Your task to perform on an android device: Show the shopping cart on costco. Search for "bose soundsport free" on costco, select the first entry, and add it to the cart. Image 0: 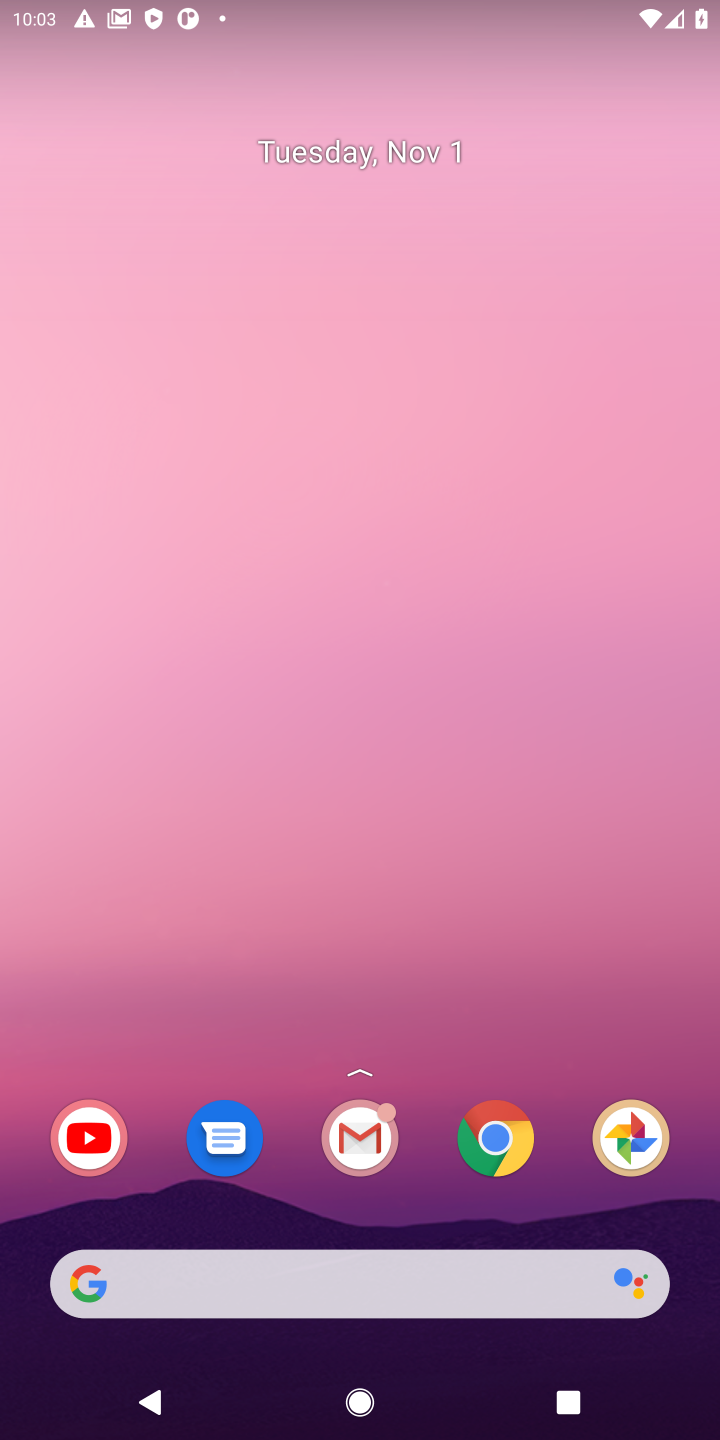
Step 0: click (501, 1159)
Your task to perform on an android device: Show the shopping cart on costco. Search for "bose soundsport free" on costco, select the first entry, and add it to the cart. Image 1: 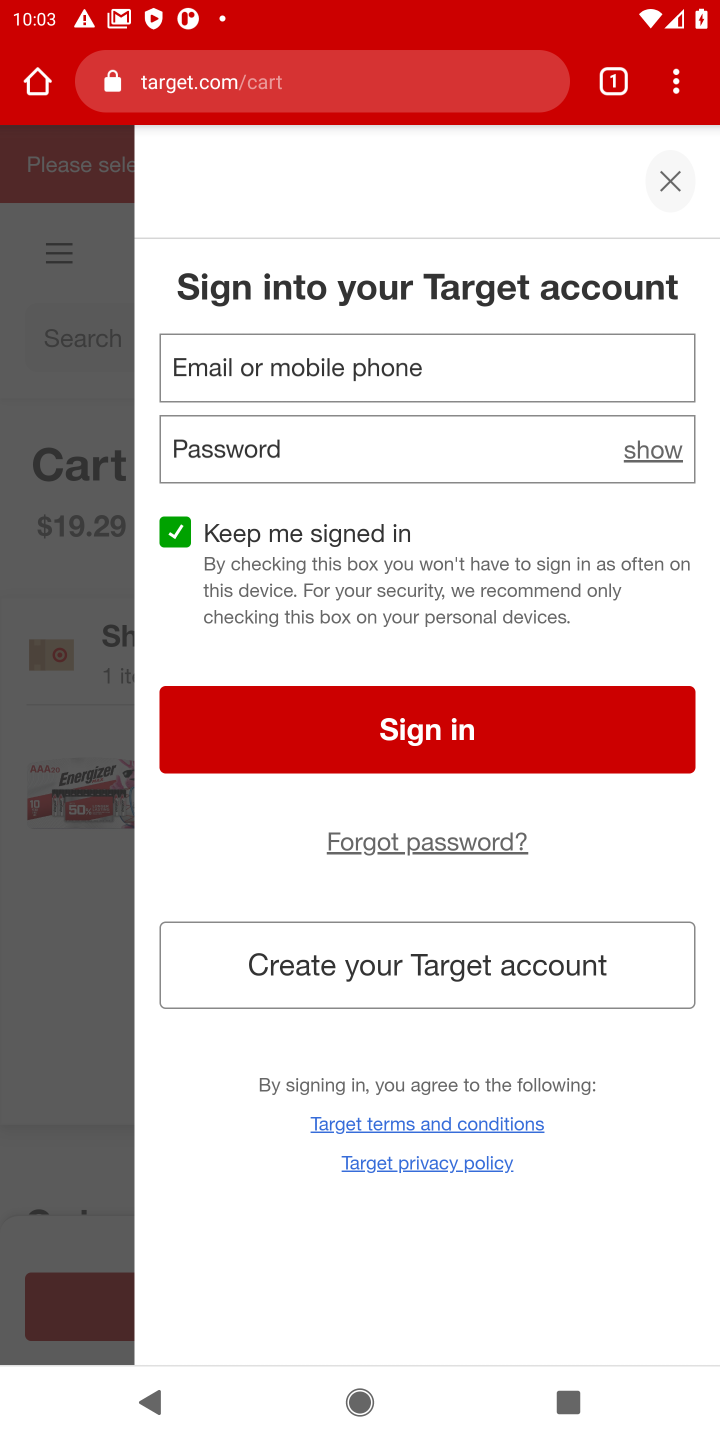
Step 1: click (229, 86)
Your task to perform on an android device: Show the shopping cart on costco. Search for "bose soundsport free" on costco, select the first entry, and add it to the cart. Image 2: 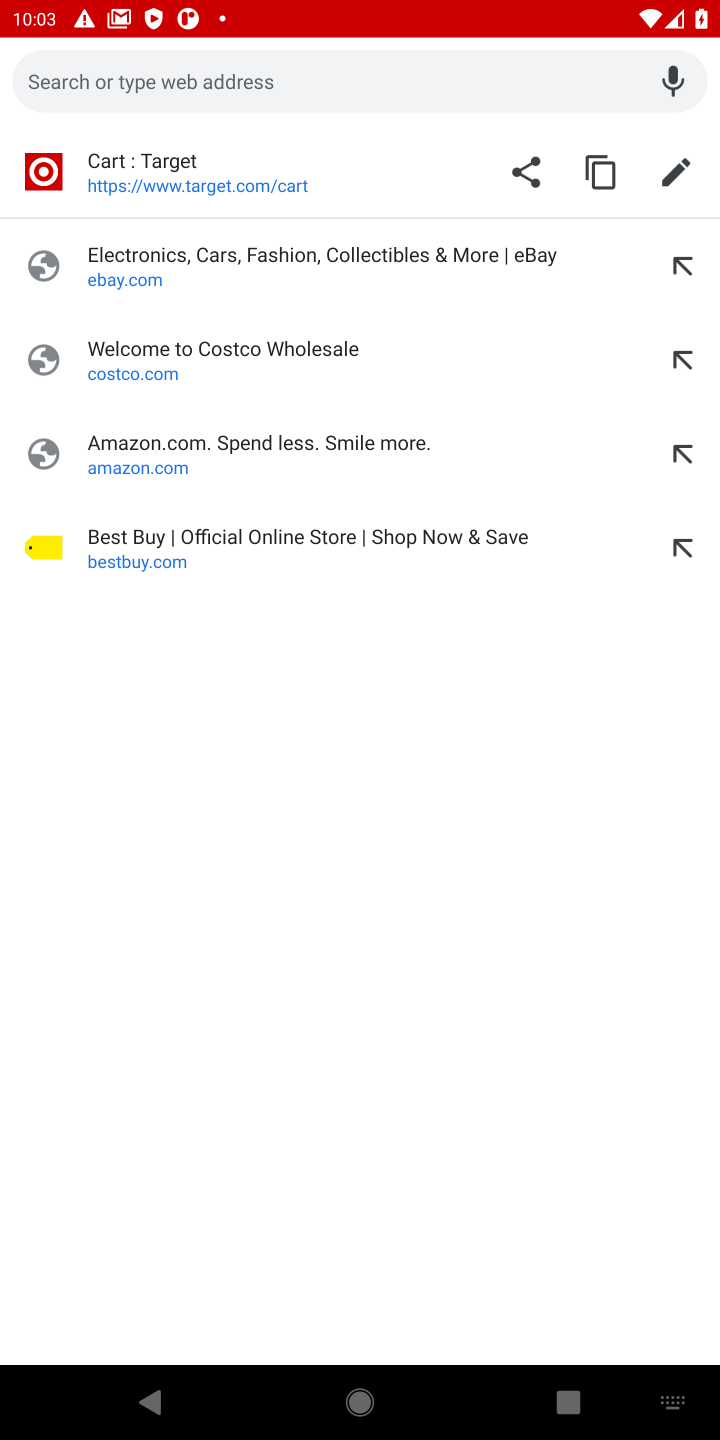
Step 2: click (153, 370)
Your task to perform on an android device: Show the shopping cart on costco. Search for "bose soundsport free" on costco, select the first entry, and add it to the cart. Image 3: 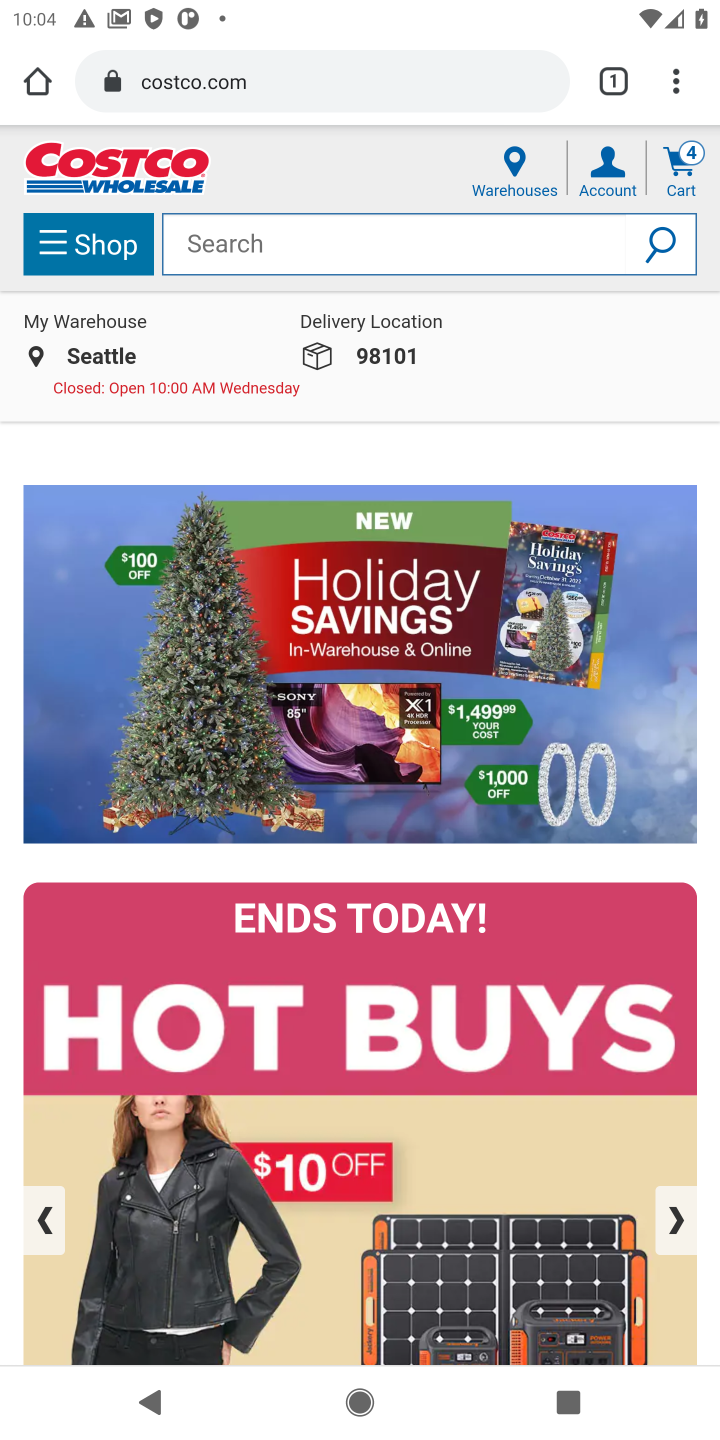
Step 3: click (691, 167)
Your task to perform on an android device: Show the shopping cart on costco. Search for "bose soundsport free" on costco, select the first entry, and add it to the cart. Image 4: 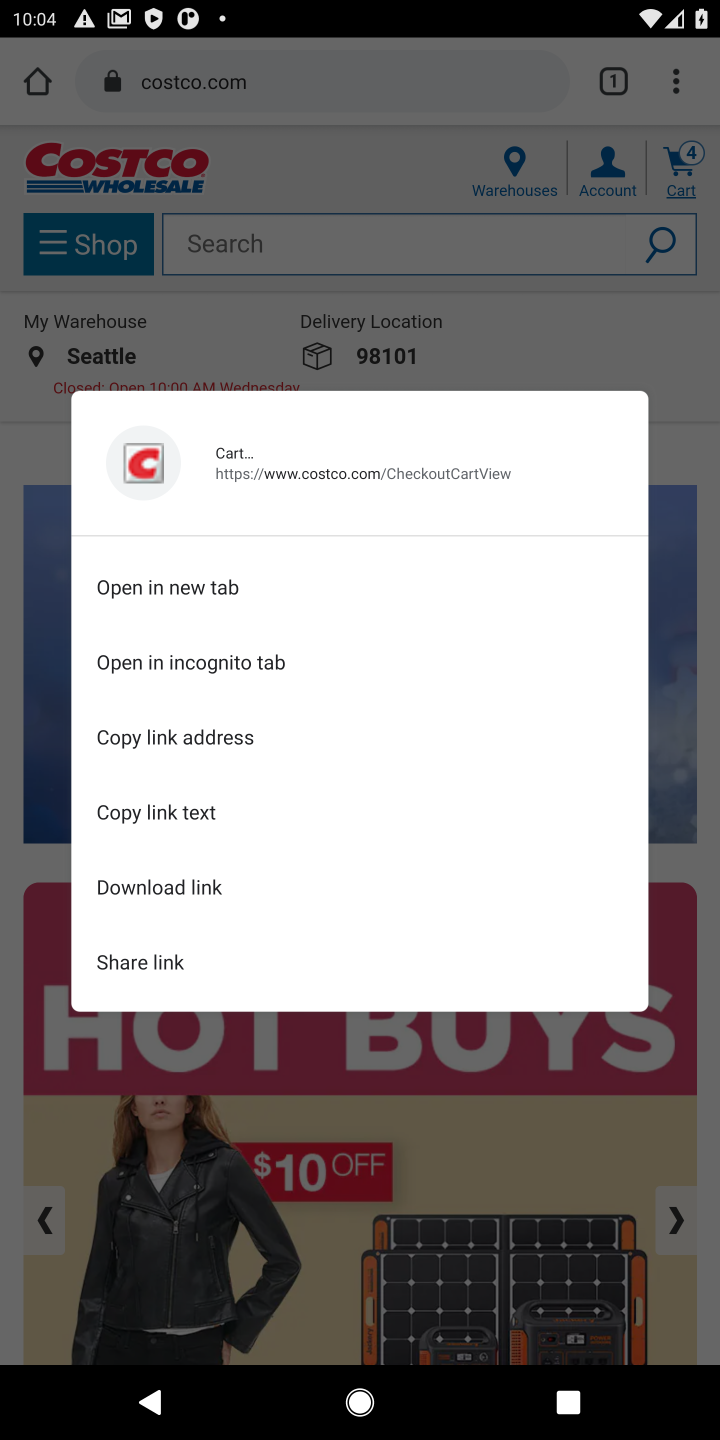
Step 4: click (691, 167)
Your task to perform on an android device: Show the shopping cart on costco. Search for "bose soundsport free" on costco, select the first entry, and add it to the cart. Image 5: 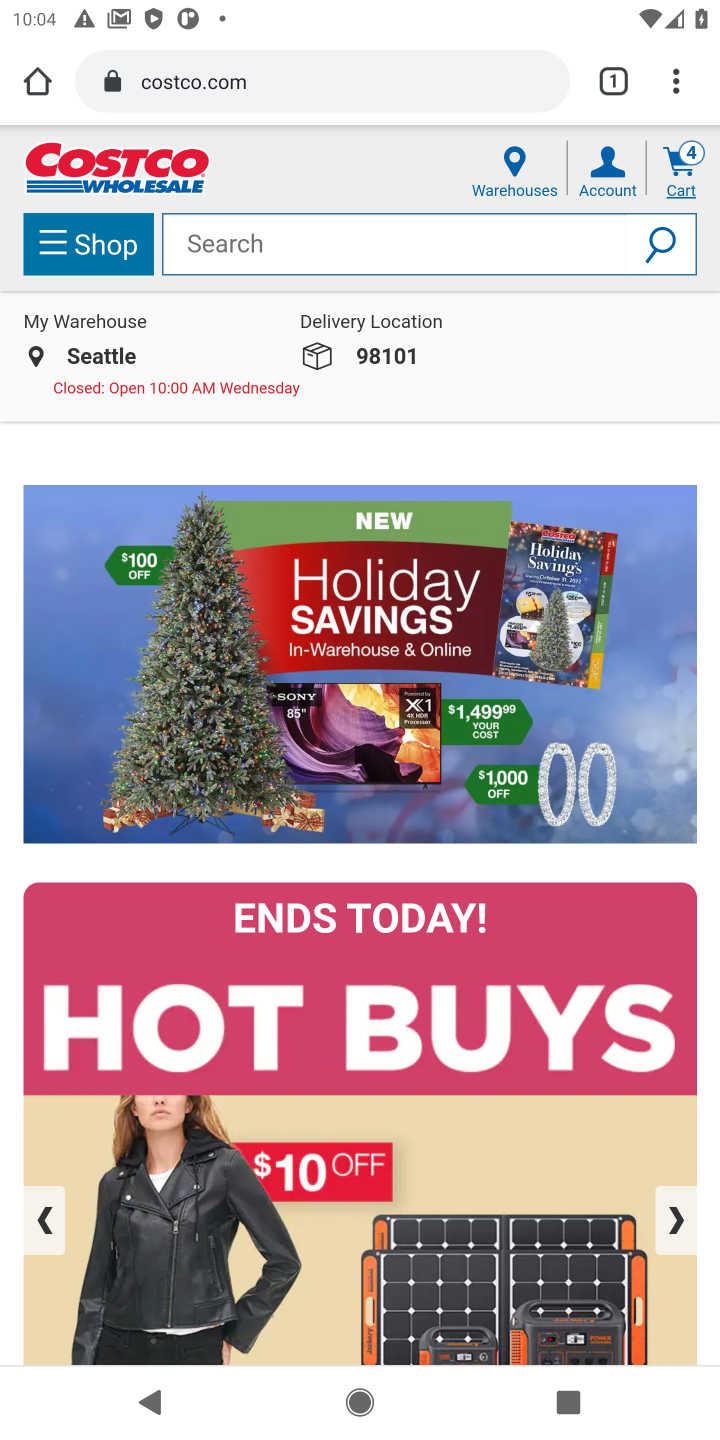
Step 5: click (674, 169)
Your task to perform on an android device: Show the shopping cart on costco. Search for "bose soundsport free" on costco, select the first entry, and add it to the cart. Image 6: 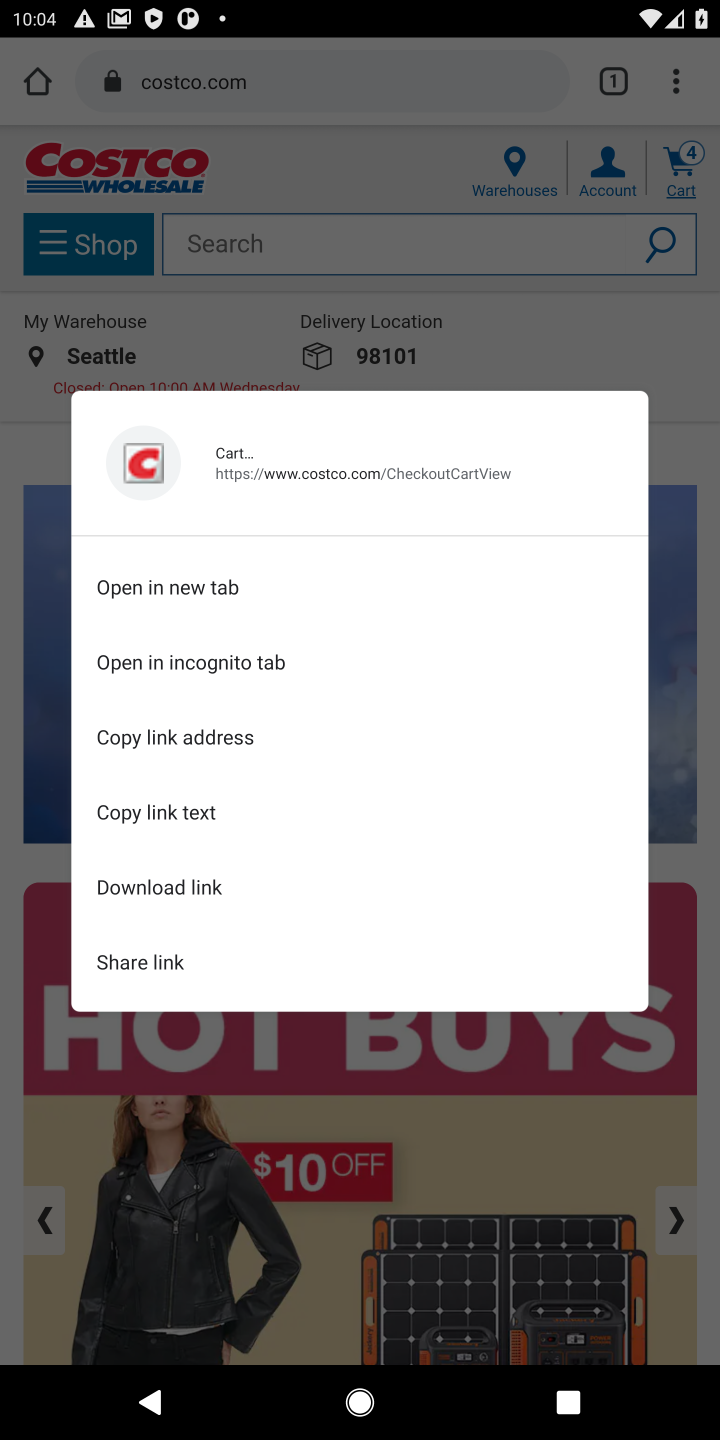
Step 6: click (674, 169)
Your task to perform on an android device: Show the shopping cart on costco. Search for "bose soundsport free" on costco, select the first entry, and add it to the cart. Image 7: 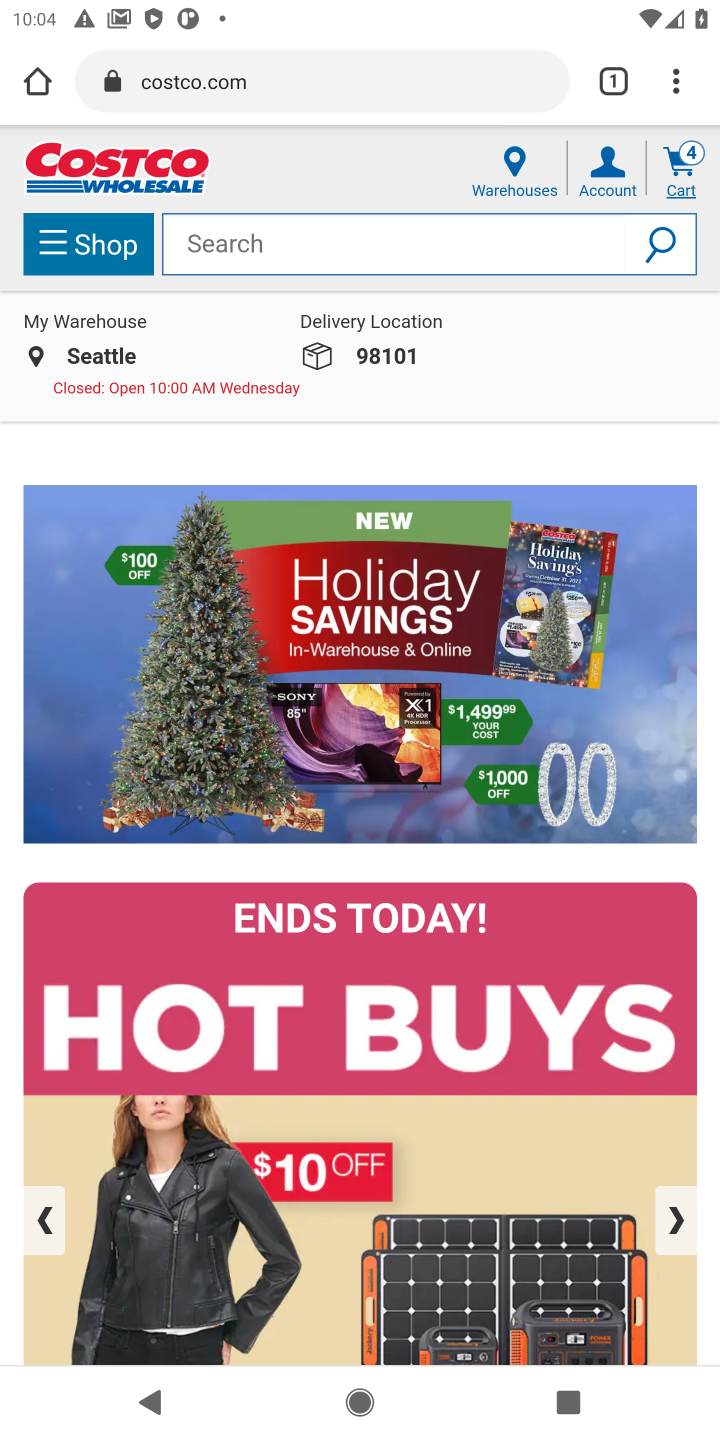
Step 7: click (674, 167)
Your task to perform on an android device: Show the shopping cart on costco. Search for "bose soundsport free" on costco, select the first entry, and add it to the cart. Image 8: 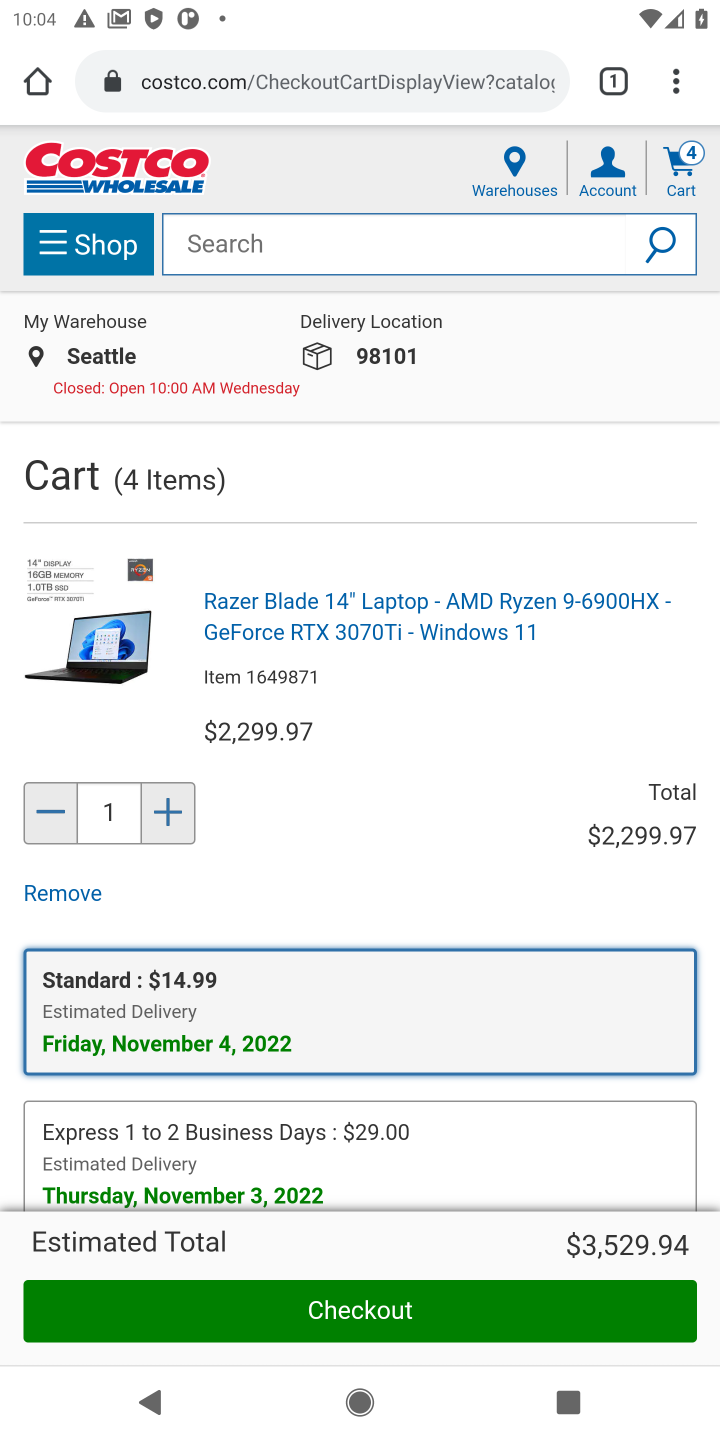
Step 8: click (410, 240)
Your task to perform on an android device: Show the shopping cart on costco. Search for "bose soundsport free" on costco, select the first entry, and add it to the cart. Image 9: 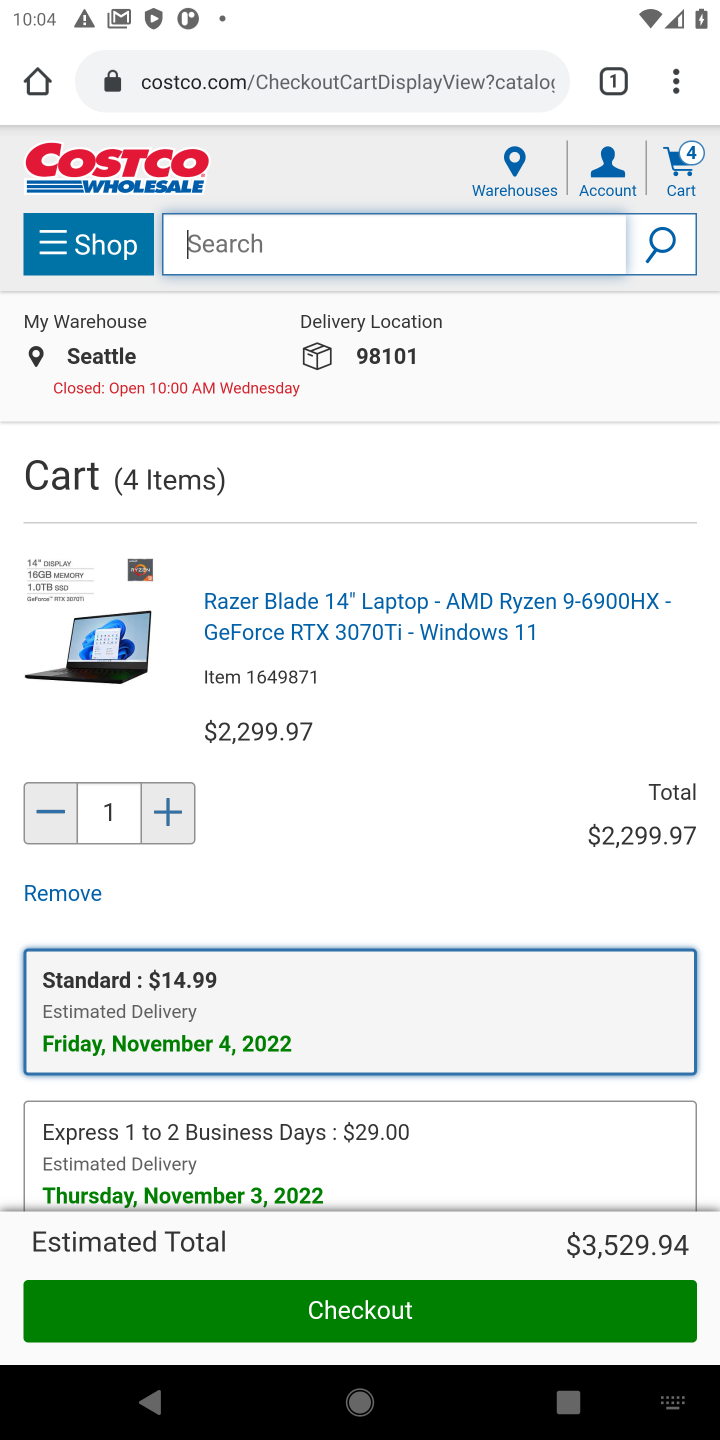
Step 9: type "bose soundsport free"
Your task to perform on an android device: Show the shopping cart on costco. Search for "bose soundsport free" on costco, select the first entry, and add it to the cart. Image 10: 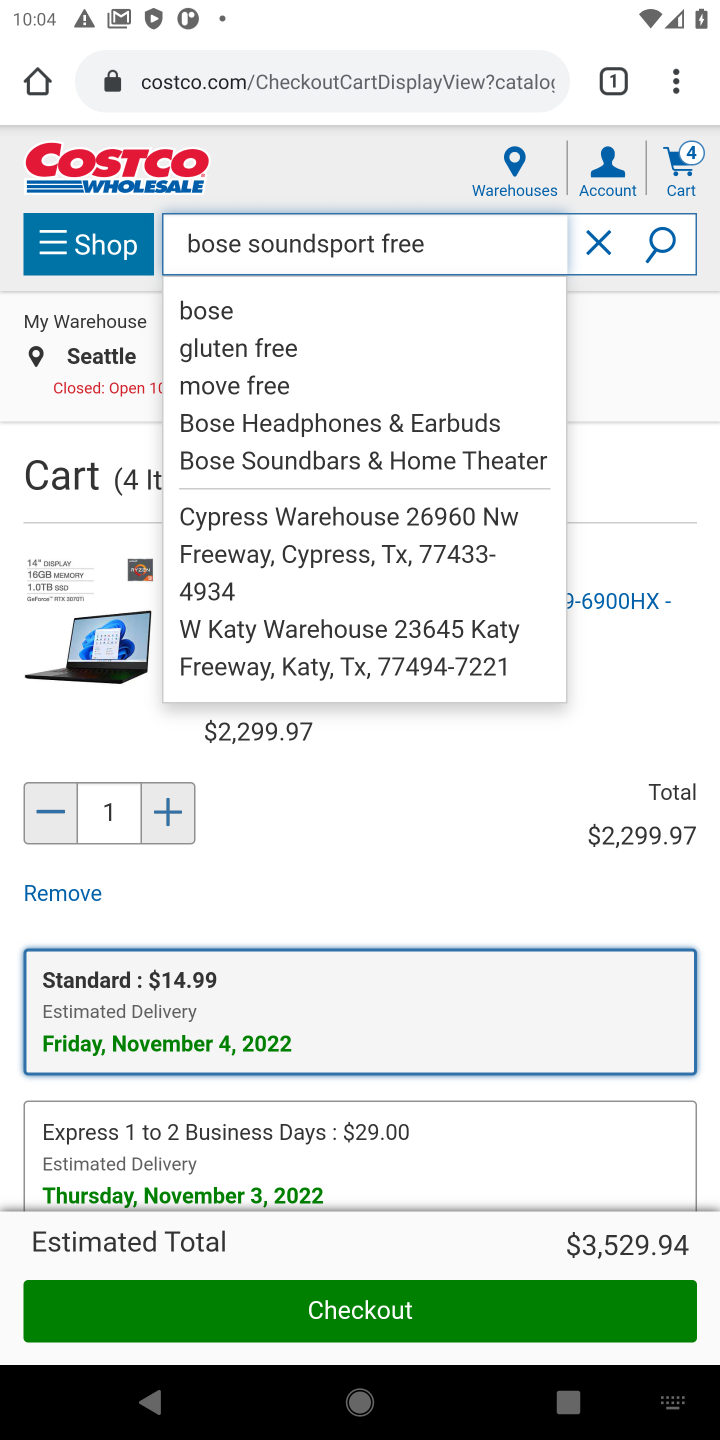
Step 10: click (658, 240)
Your task to perform on an android device: Show the shopping cart on costco. Search for "bose soundsport free" on costco, select the first entry, and add it to the cart. Image 11: 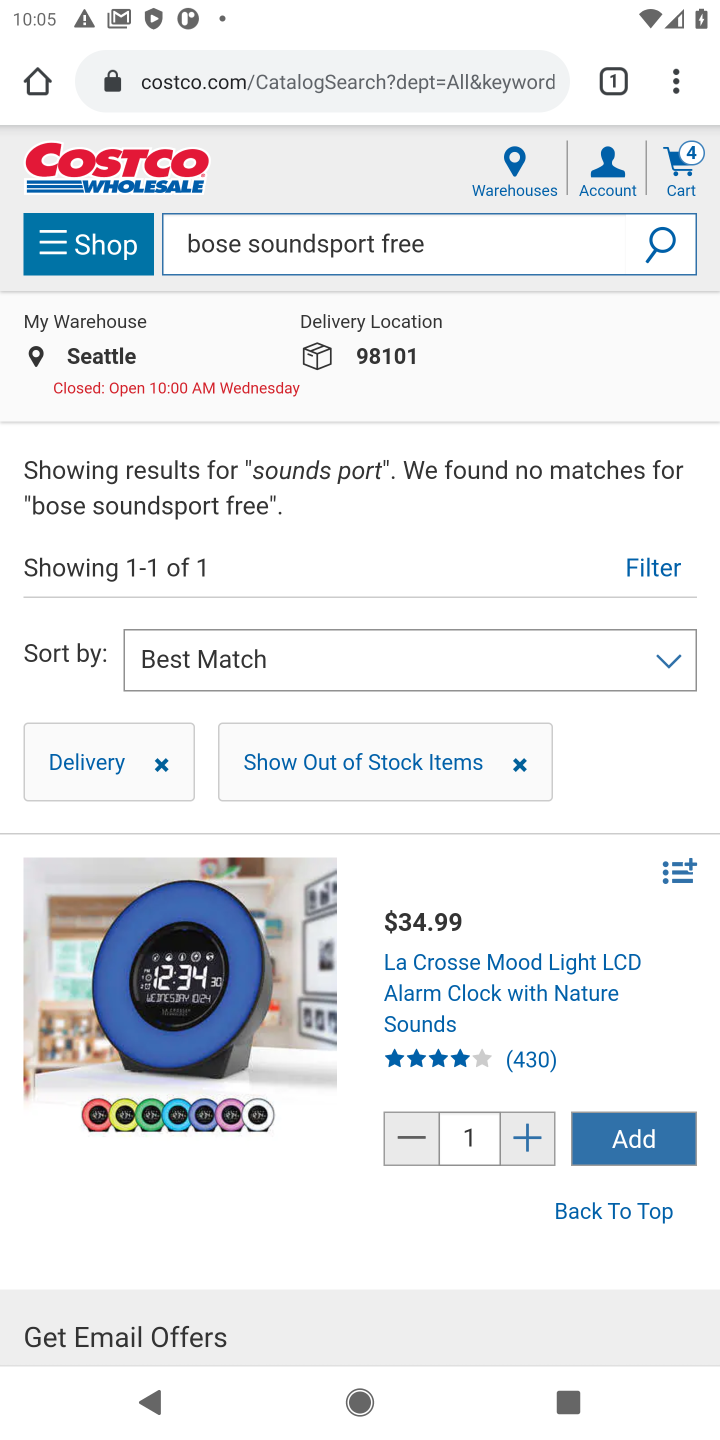
Step 11: task complete